Your task to perform on an android device: Open Google Chrome and open the bookmarks view Image 0: 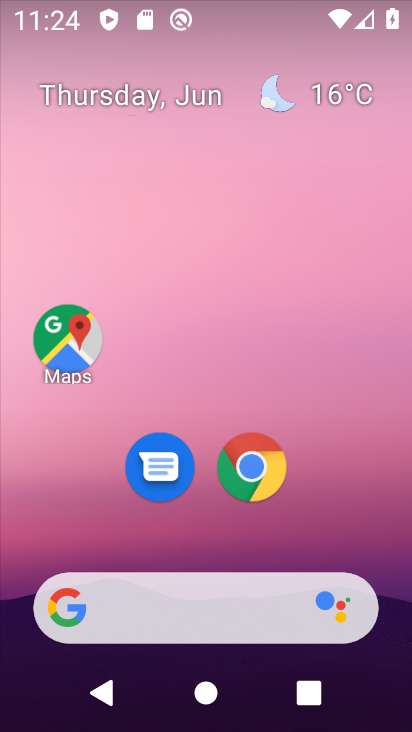
Step 0: click (250, 472)
Your task to perform on an android device: Open Google Chrome and open the bookmarks view Image 1: 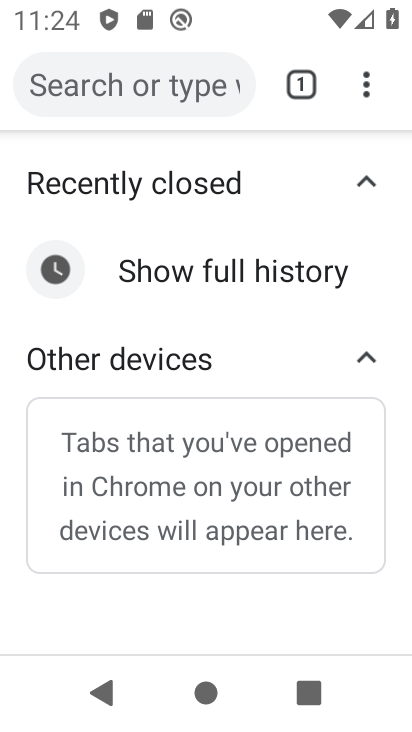
Step 1: click (368, 88)
Your task to perform on an android device: Open Google Chrome and open the bookmarks view Image 2: 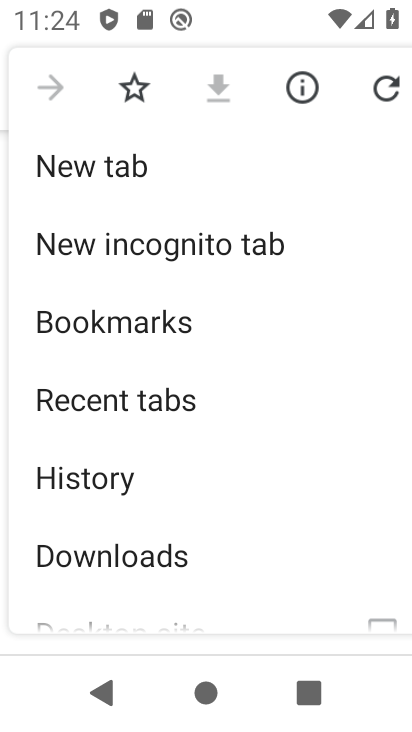
Step 2: click (145, 296)
Your task to perform on an android device: Open Google Chrome and open the bookmarks view Image 3: 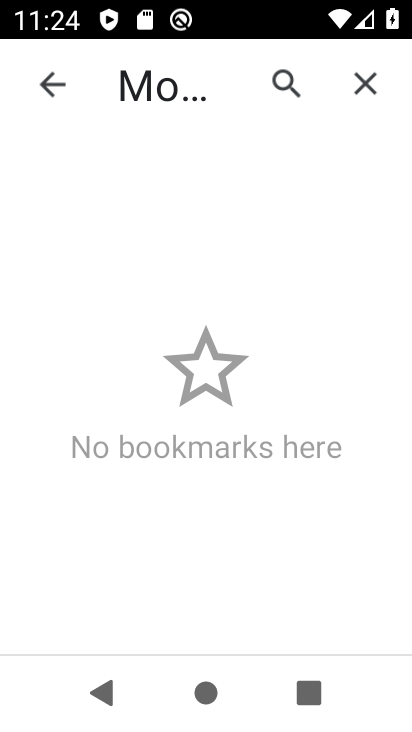
Step 3: task complete